Your task to perform on an android device: Go to Android settings Image 0: 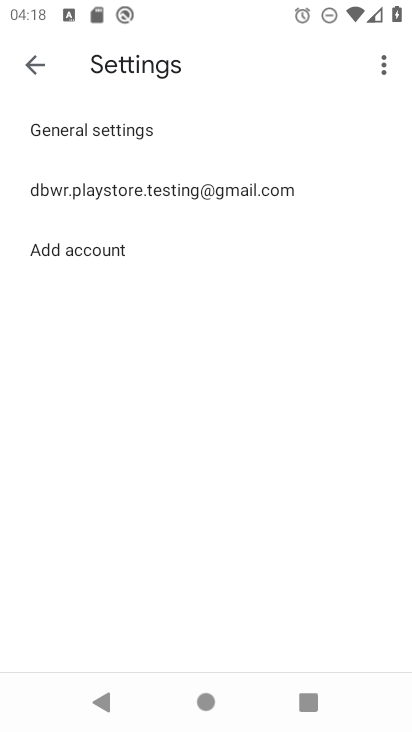
Step 0: press home button
Your task to perform on an android device: Go to Android settings Image 1: 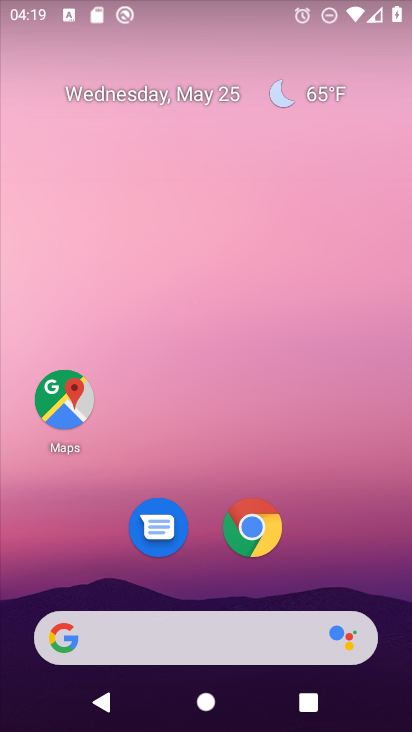
Step 1: drag from (326, 603) to (409, 160)
Your task to perform on an android device: Go to Android settings Image 2: 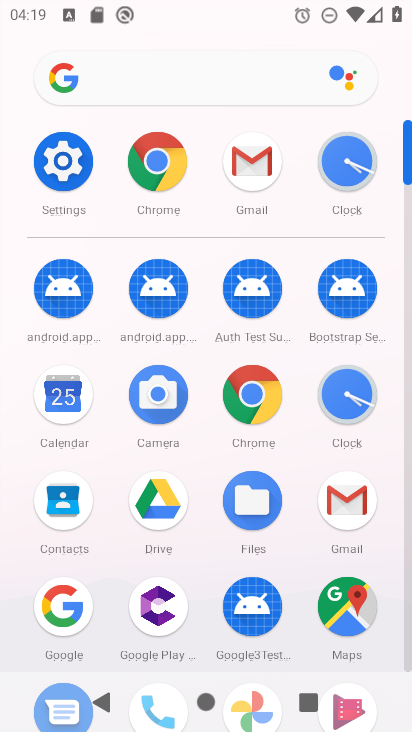
Step 2: click (77, 172)
Your task to perform on an android device: Go to Android settings Image 3: 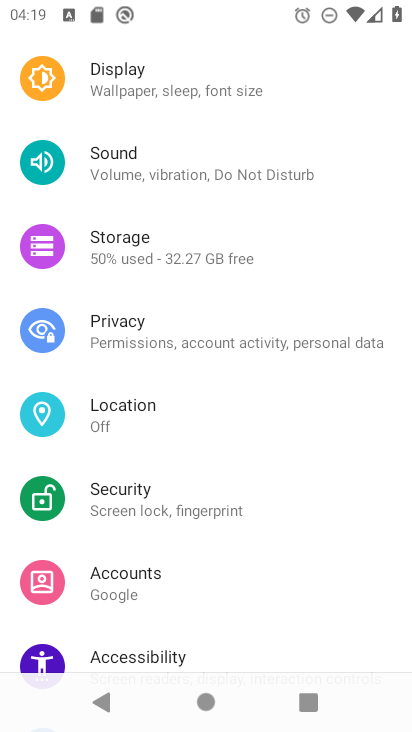
Step 3: drag from (234, 195) to (283, 209)
Your task to perform on an android device: Go to Android settings Image 4: 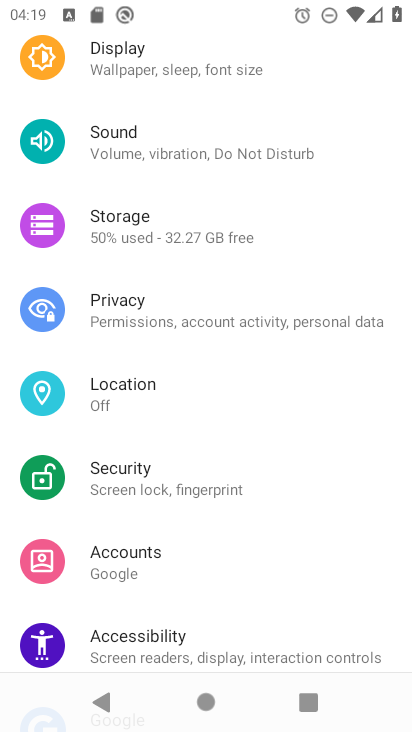
Step 4: drag from (247, 541) to (269, 158)
Your task to perform on an android device: Go to Android settings Image 5: 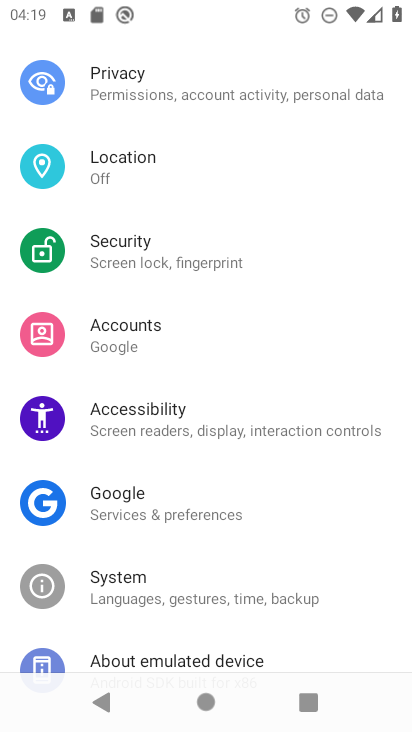
Step 5: click (118, 655)
Your task to perform on an android device: Go to Android settings Image 6: 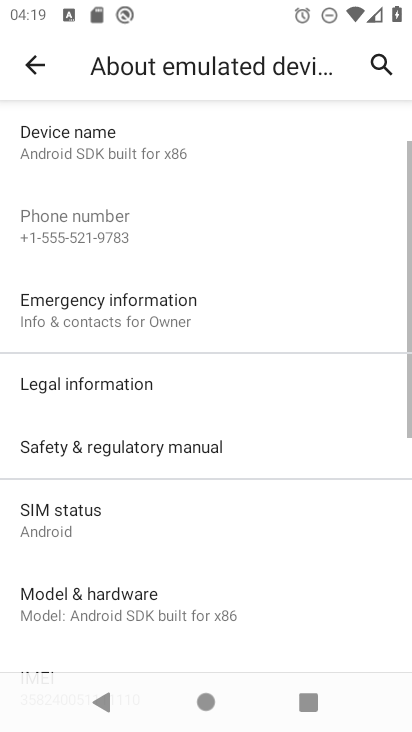
Step 6: task complete